Your task to perform on an android device: set the timer Image 0: 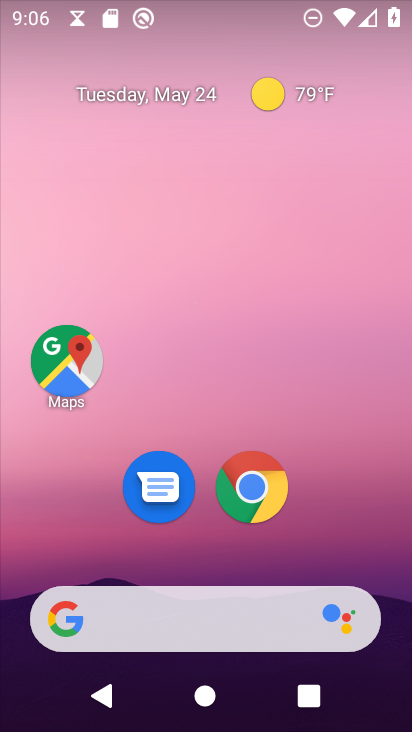
Step 0: drag from (36, 595) to (260, 203)
Your task to perform on an android device: set the timer Image 1: 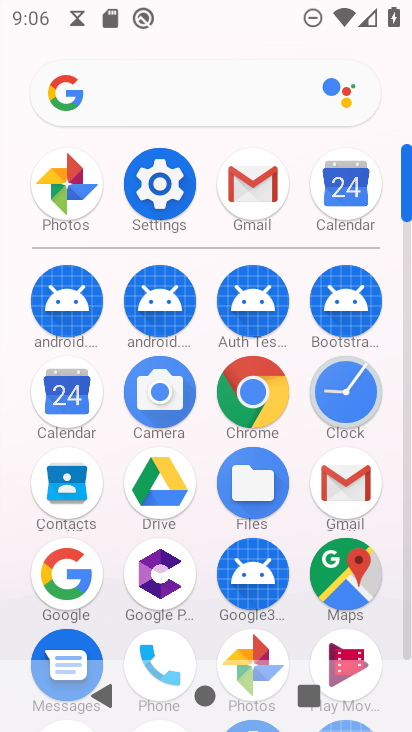
Step 1: click (320, 404)
Your task to perform on an android device: set the timer Image 2: 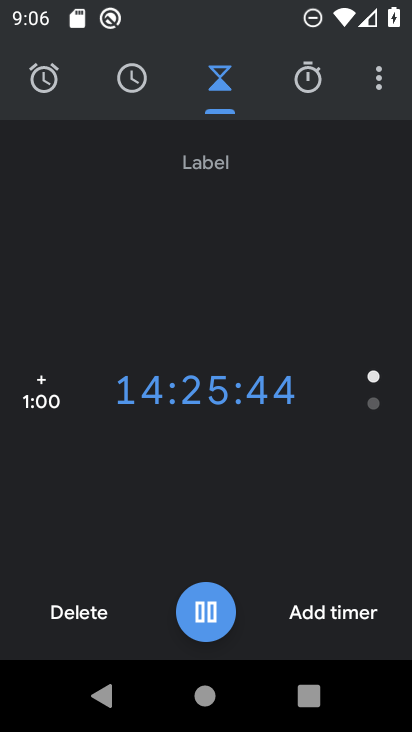
Step 2: click (317, 615)
Your task to perform on an android device: set the timer Image 3: 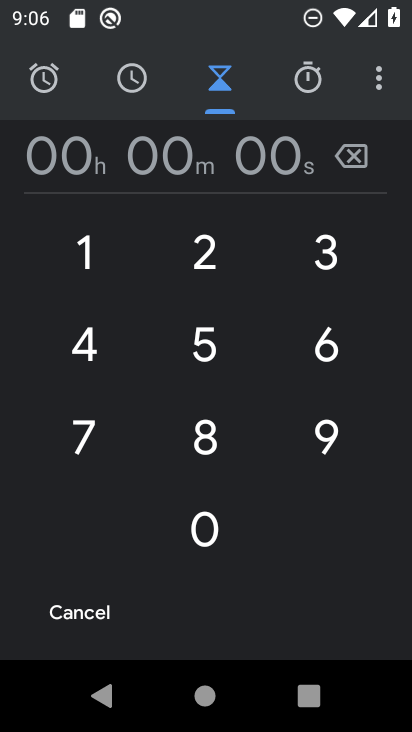
Step 3: click (213, 335)
Your task to perform on an android device: set the timer Image 4: 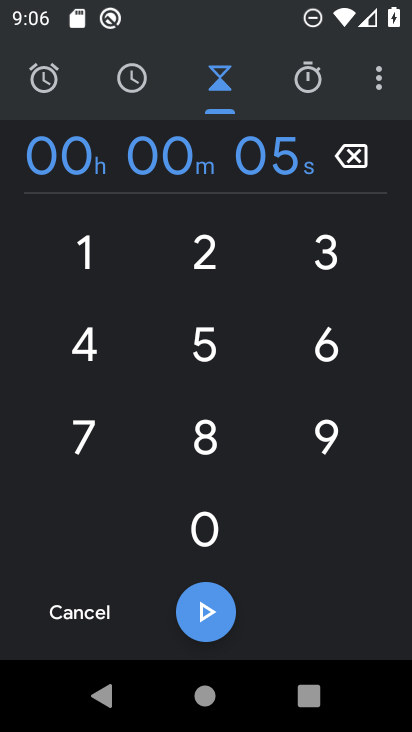
Step 4: click (188, 542)
Your task to perform on an android device: set the timer Image 5: 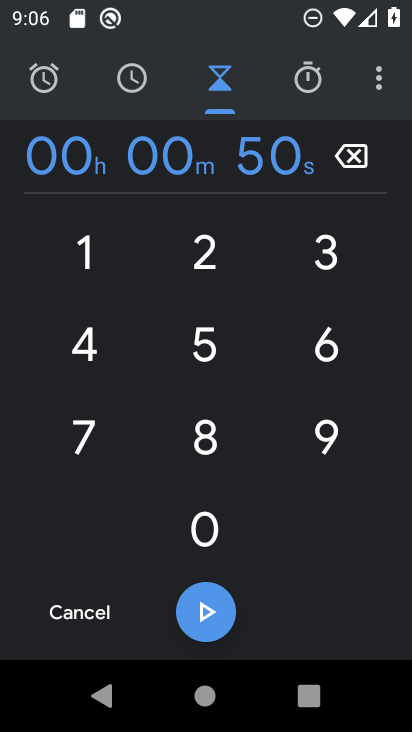
Step 5: click (198, 532)
Your task to perform on an android device: set the timer Image 6: 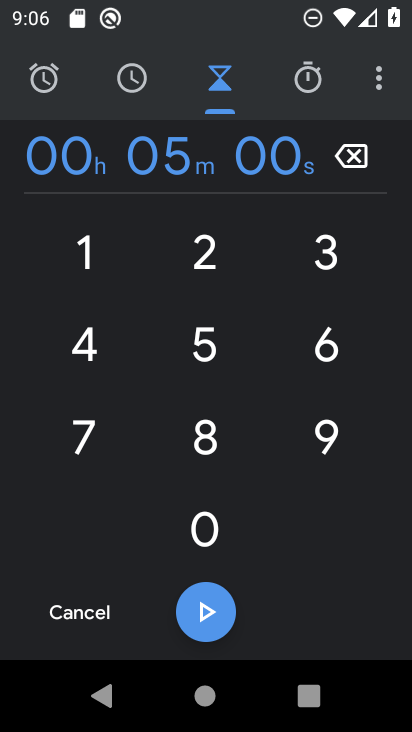
Step 6: click (198, 532)
Your task to perform on an android device: set the timer Image 7: 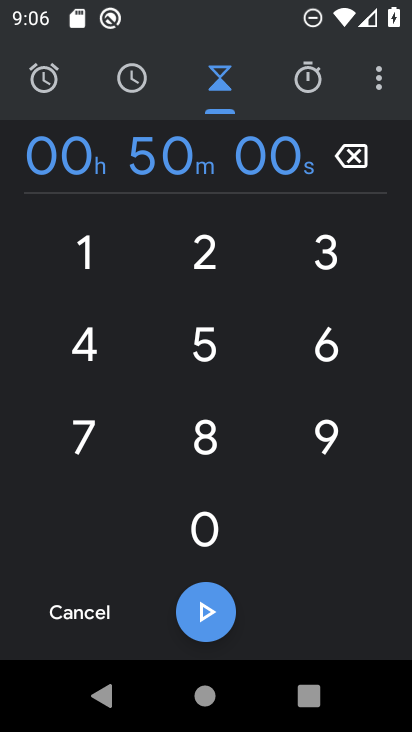
Step 7: click (198, 532)
Your task to perform on an android device: set the timer Image 8: 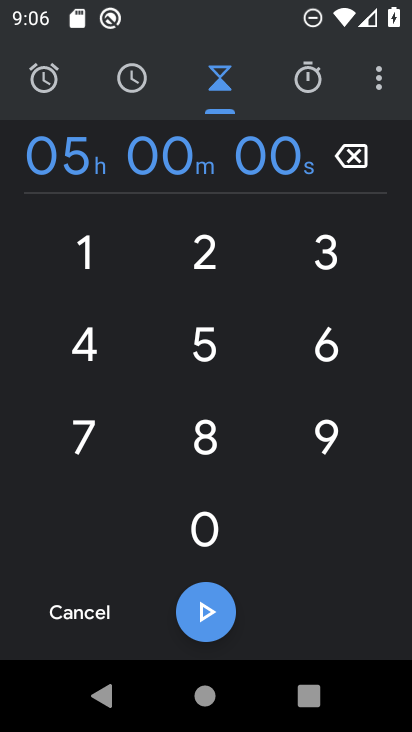
Step 8: click (194, 608)
Your task to perform on an android device: set the timer Image 9: 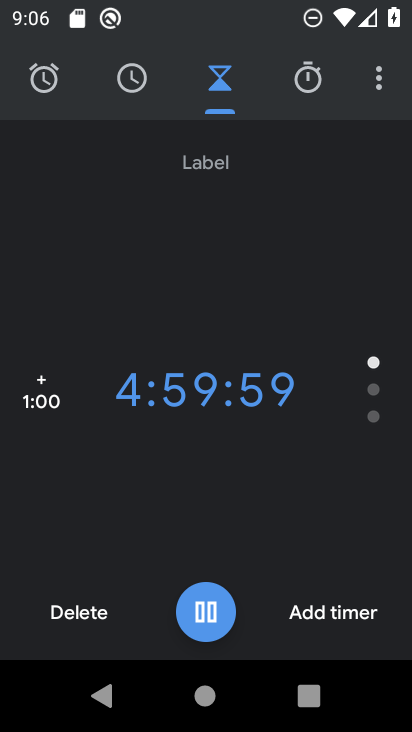
Step 9: task complete